Your task to perform on an android device: toggle airplane mode Image 0: 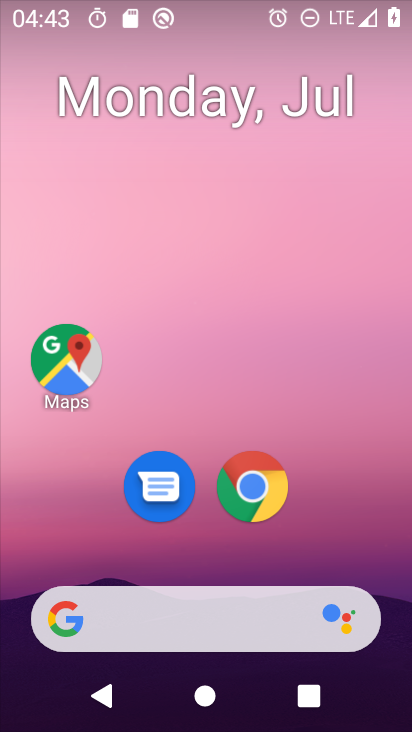
Step 0: drag from (340, 57) to (313, 539)
Your task to perform on an android device: toggle airplane mode Image 1: 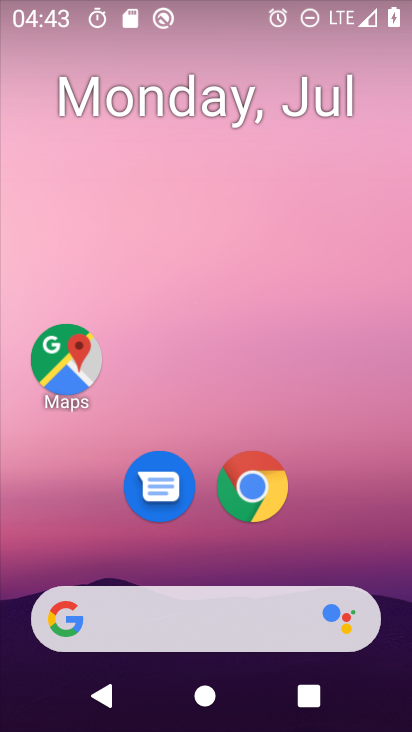
Step 1: drag from (353, 21) to (253, 539)
Your task to perform on an android device: toggle airplane mode Image 2: 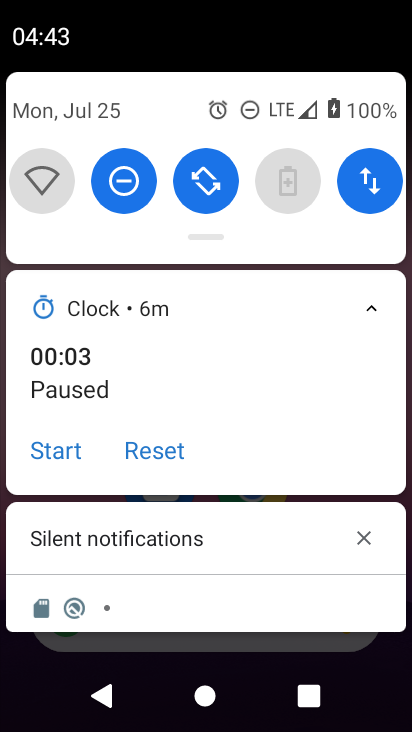
Step 2: drag from (188, 229) to (220, 527)
Your task to perform on an android device: toggle airplane mode Image 3: 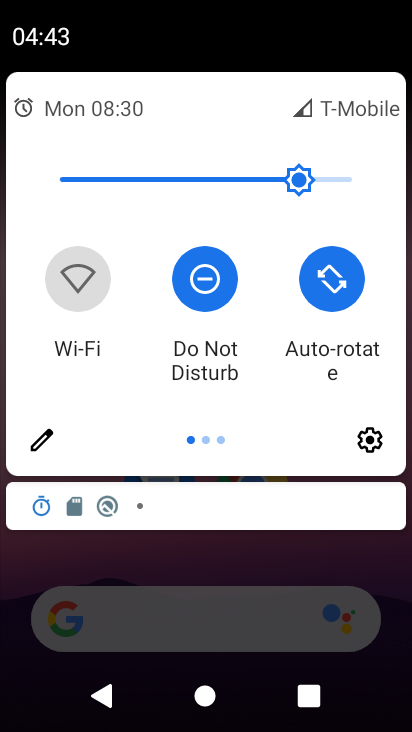
Step 3: drag from (319, 288) to (0, 251)
Your task to perform on an android device: toggle airplane mode Image 4: 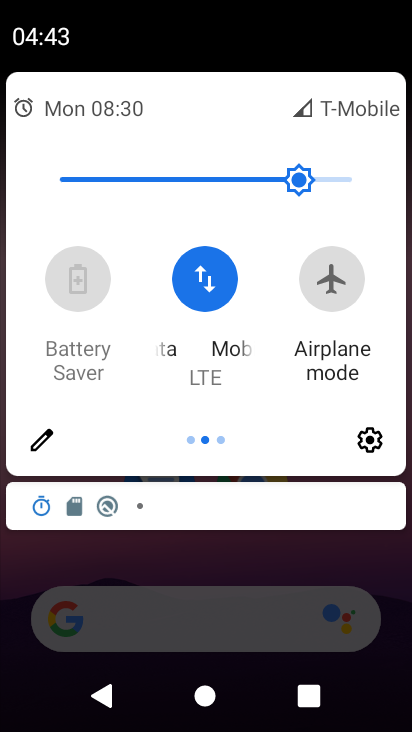
Step 4: click (334, 286)
Your task to perform on an android device: toggle airplane mode Image 5: 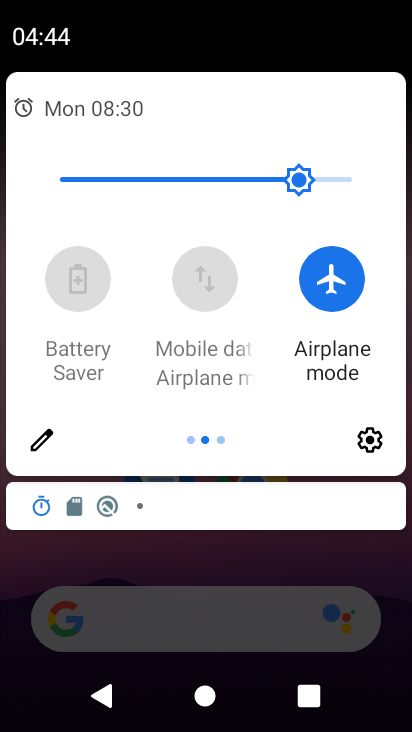
Step 5: task complete